Your task to perform on an android device: Go to ESPN.com Image 0: 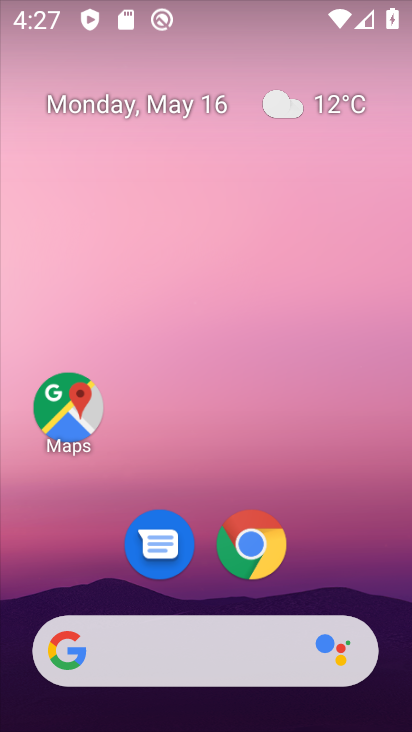
Step 0: click (250, 540)
Your task to perform on an android device: Go to ESPN.com Image 1: 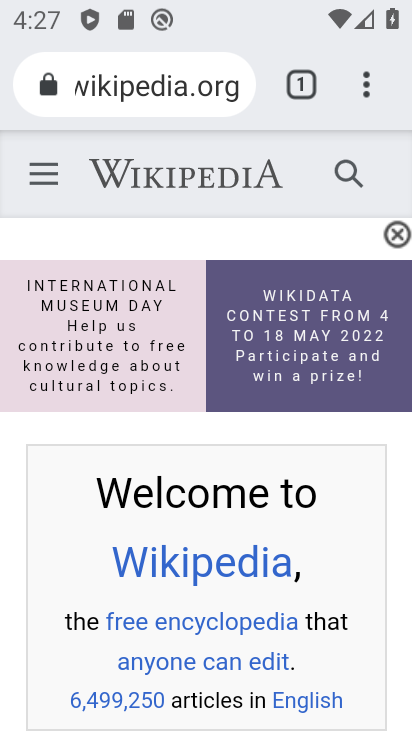
Step 1: click (202, 92)
Your task to perform on an android device: Go to ESPN.com Image 2: 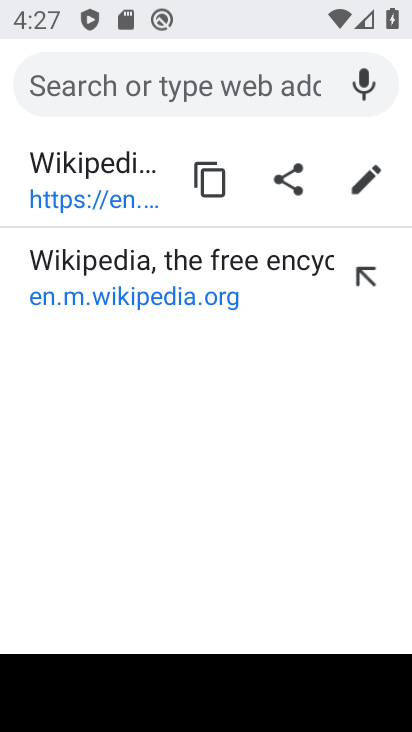
Step 2: click (202, 95)
Your task to perform on an android device: Go to ESPN.com Image 3: 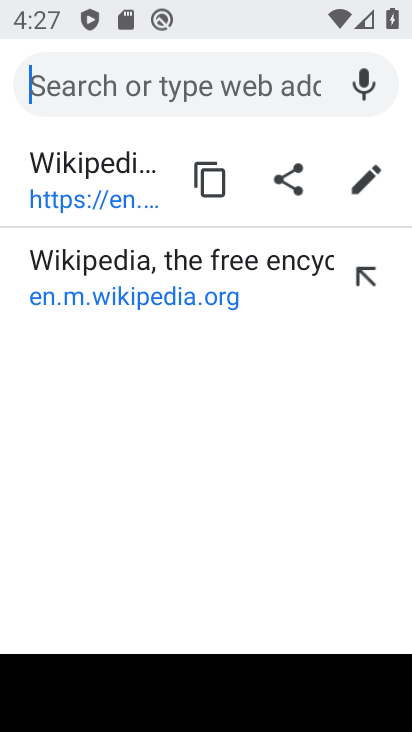
Step 3: type "ESPN.com"
Your task to perform on an android device: Go to ESPN.com Image 4: 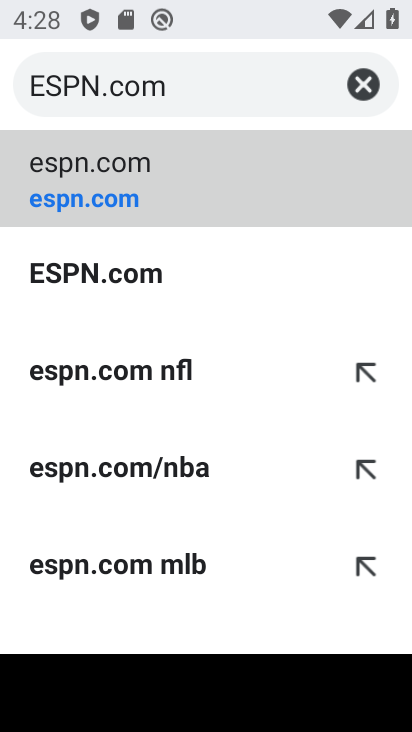
Step 4: click (98, 265)
Your task to perform on an android device: Go to ESPN.com Image 5: 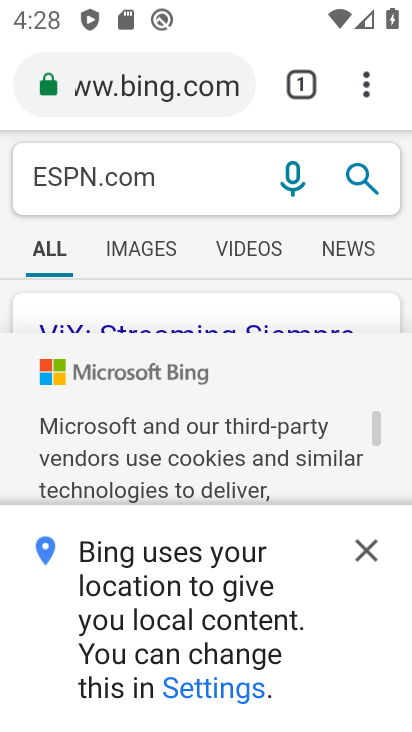
Step 5: task complete